Your task to perform on an android device: star an email in the gmail app Image 0: 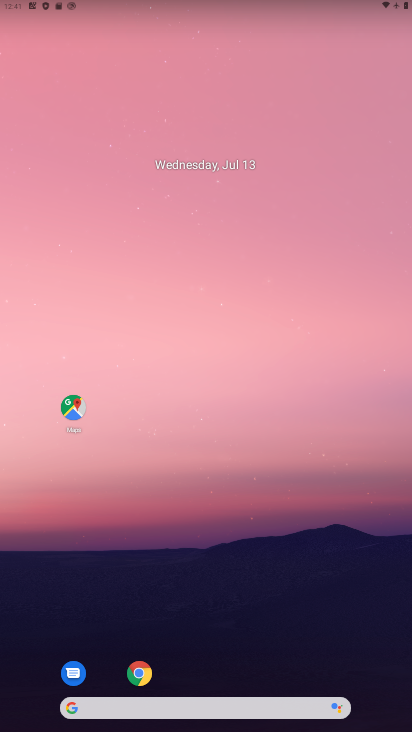
Step 0: drag from (213, 648) to (238, 161)
Your task to perform on an android device: star an email in the gmail app Image 1: 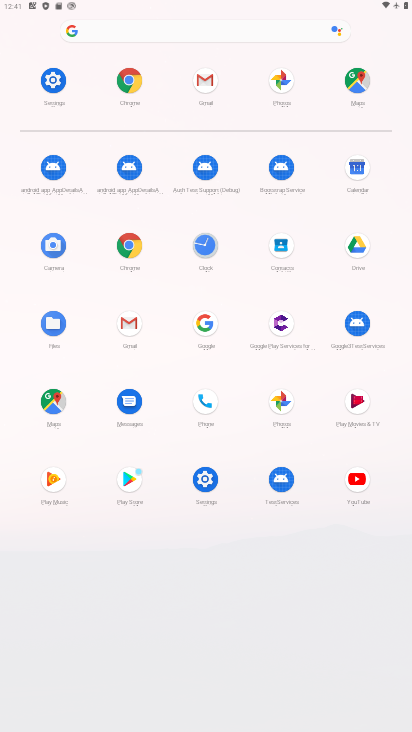
Step 1: click (201, 104)
Your task to perform on an android device: star an email in the gmail app Image 2: 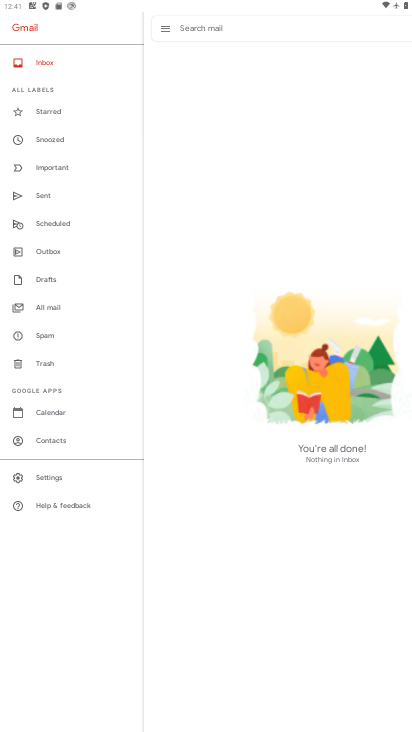
Step 2: click (48, 313)
Your task to perform on an android device: star an email in the gmail app Image 3: 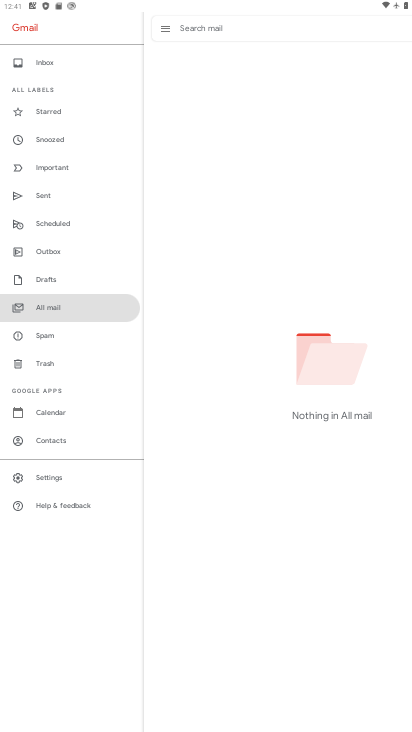
Step 3: task complete